Your task to perform on an android device: open wifi settings Image 0: 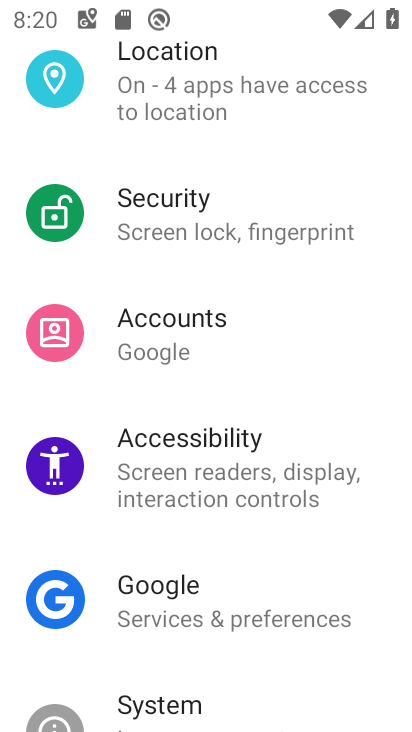
Step 0: drag from (330, 227) to (213, 712)
Your task to perform on an android device: open wifi settings Image 1: 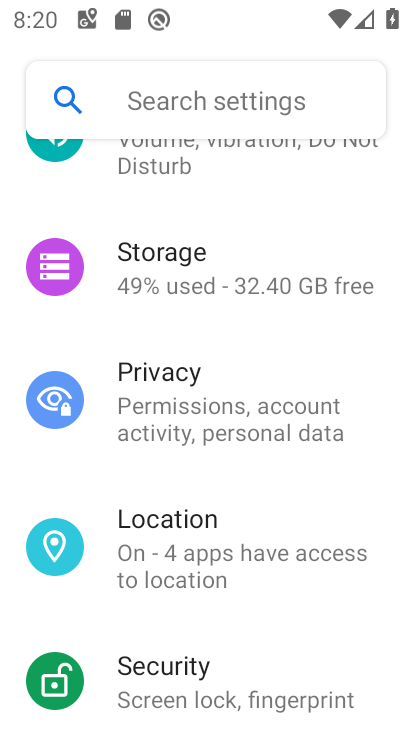
Step 1: drag from (213, 271) to (157, 629)
Your task to perform on an android device: open wifi settings Image 2: 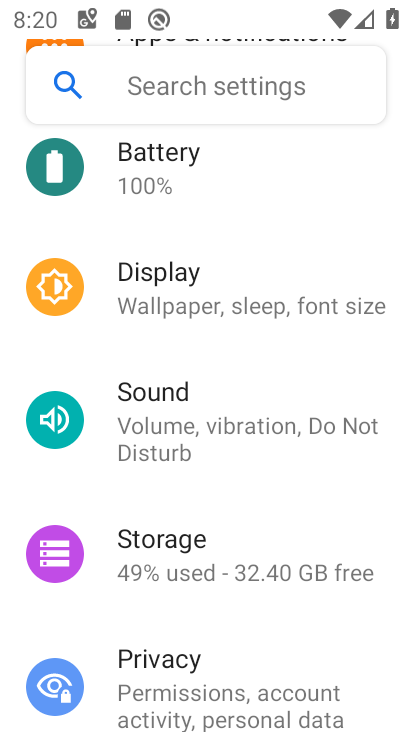
Step 2: drag from (203, 262) to (154, 540)
Your task to perform on an android device: open wifi settings Image 3: 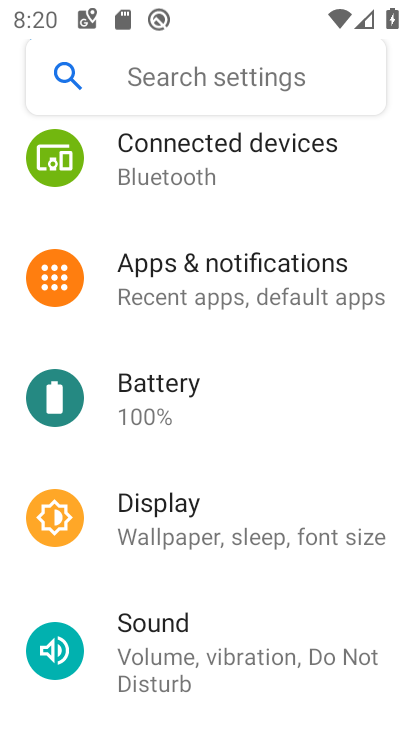
Step 3: drag from (171, 214) to (130, 650)
Your task to perform on an android device: open wifi settings Image 4: 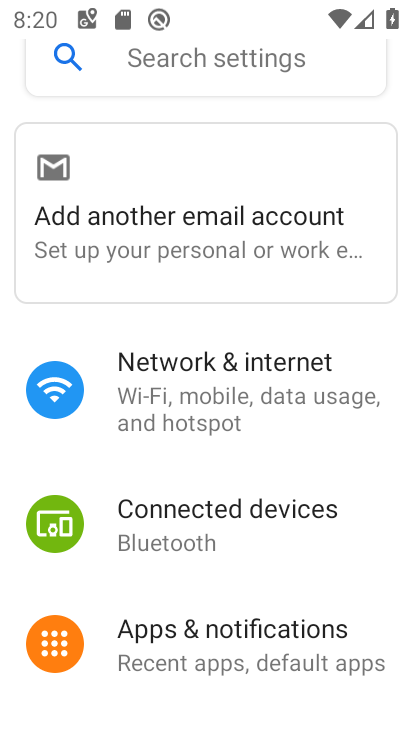
Step 4: drag from (205, 291) to (201, 543)
Your task to perform on an android device: open wifi settings Image 5: 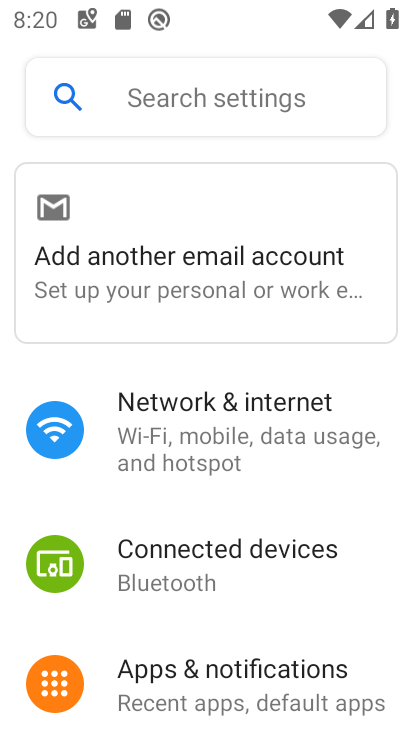
Step 5: click (204, 441)
Your task to perform on an android device: open wifi settings Image 6: 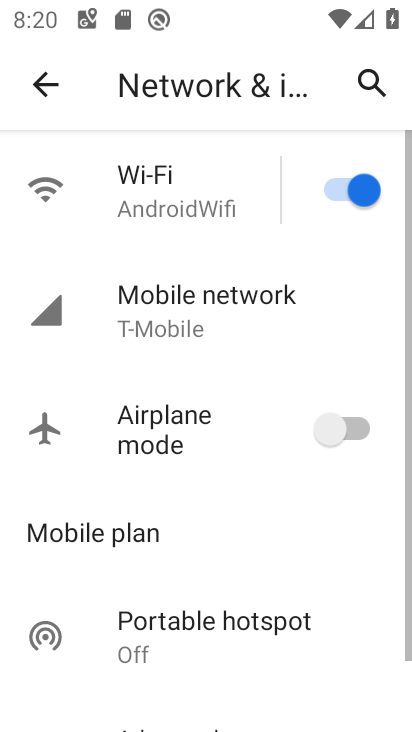
Step 6: click (196, 198)
Your task to perform on an android device: open wifi settings Image 7: 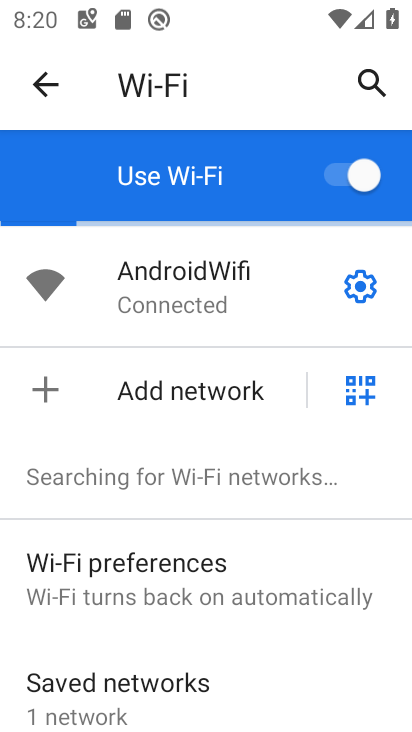
Step 7: task complete